Your task to perform on an android device: Open calendar and show me the fourth week of next month Image 0: 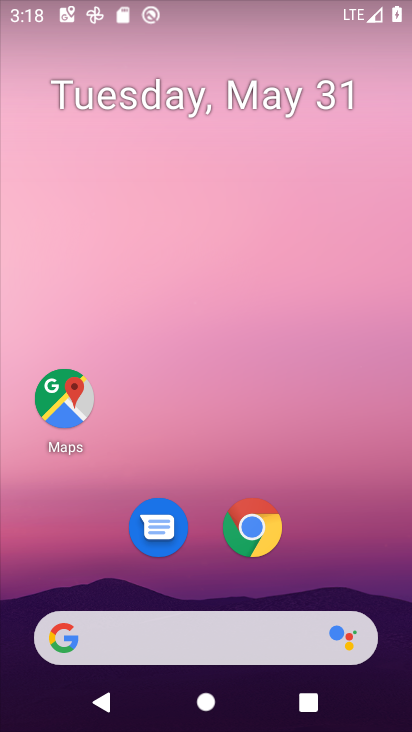
Step 0: drag from (374, 450) to (378, 104)
Your task to perform on an android device: Open calendar and show me the fourth week of next month Image 1: 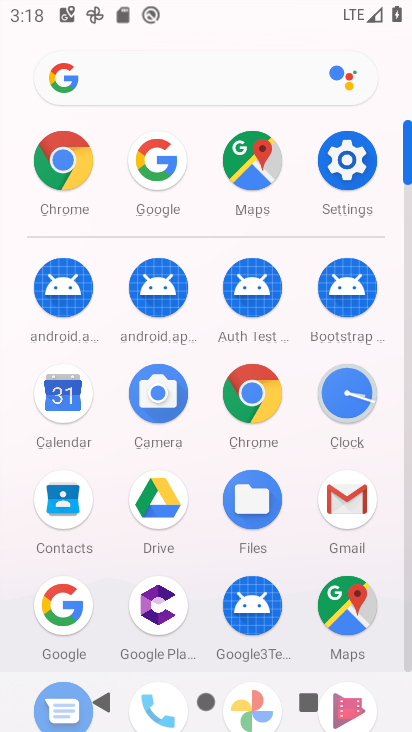
Step 1: click (75, 405)
Your task to perform on an android device: Open calendar and show me the fourth week of next month Image 2: 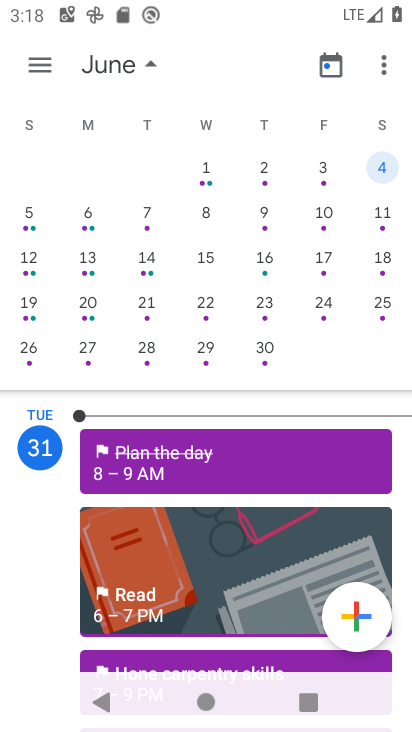
Step 2: drag from (367, 209) to (37, 166)
Your task to perform on an android device: Open calendar and show me the fourth week of next month Image 3: 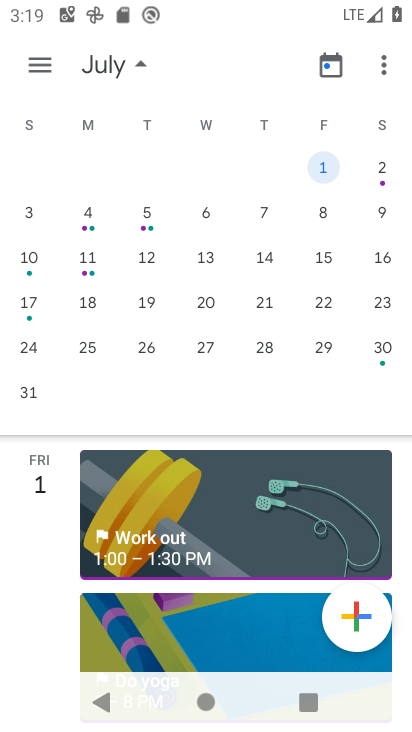
Step 3: click (264, 345)
Your task to perform on an android device: Open calendar and show me the fourth week of next month Image 4: 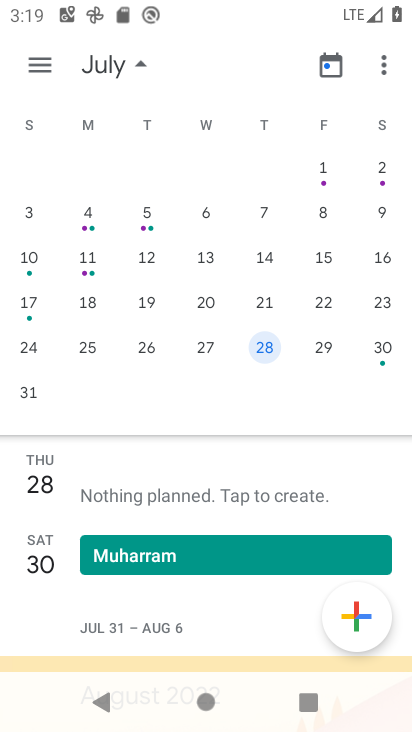
Step 4: task complete